Your task to perform on an android device: View the shopping cart on amazon. Search for logitech g910 on amazon, select the first entry, and add it to the cart. Image 0: 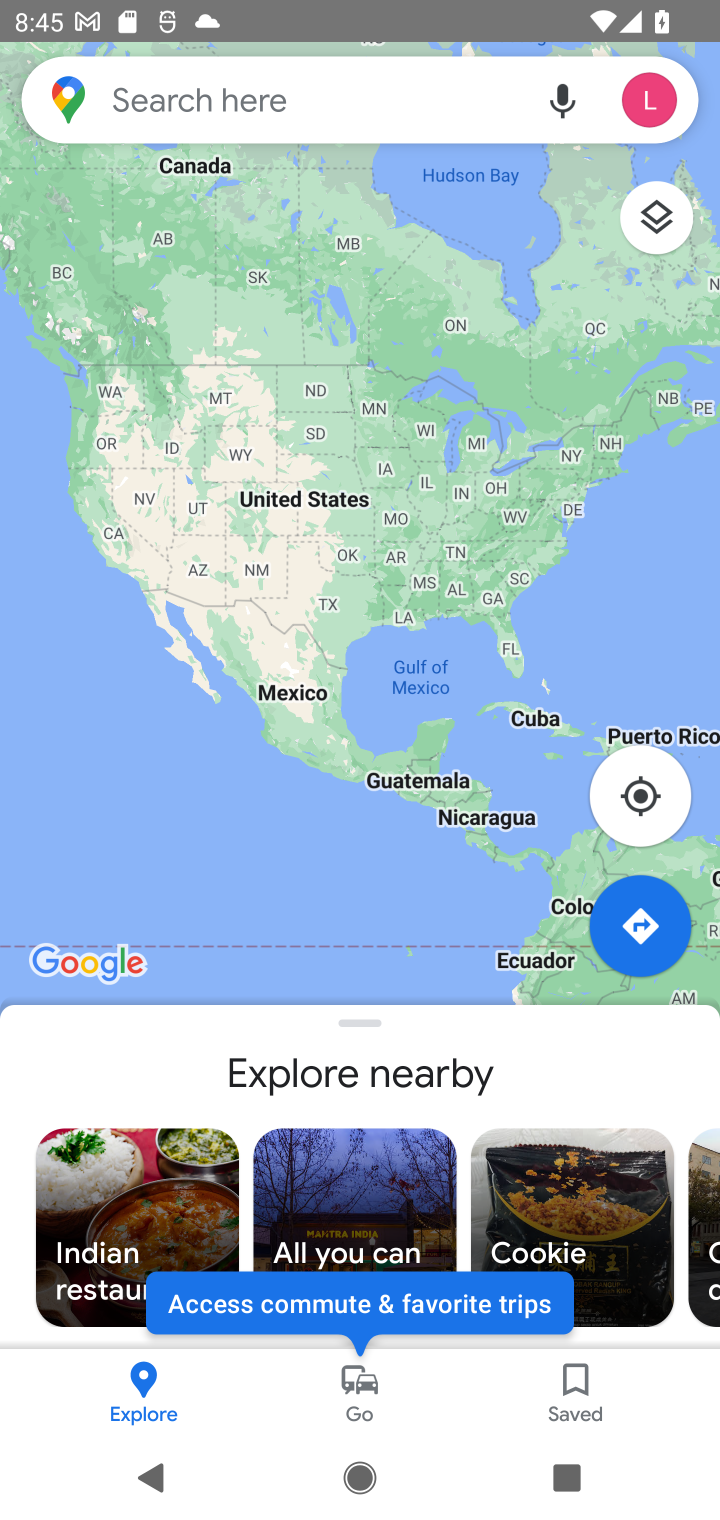
Step 0: press home button
Your task to perform on an android device: View the shopping cart on amazon. Search for logitech g910 on amazon, select the first entry, and add it to the cart. Image 1: 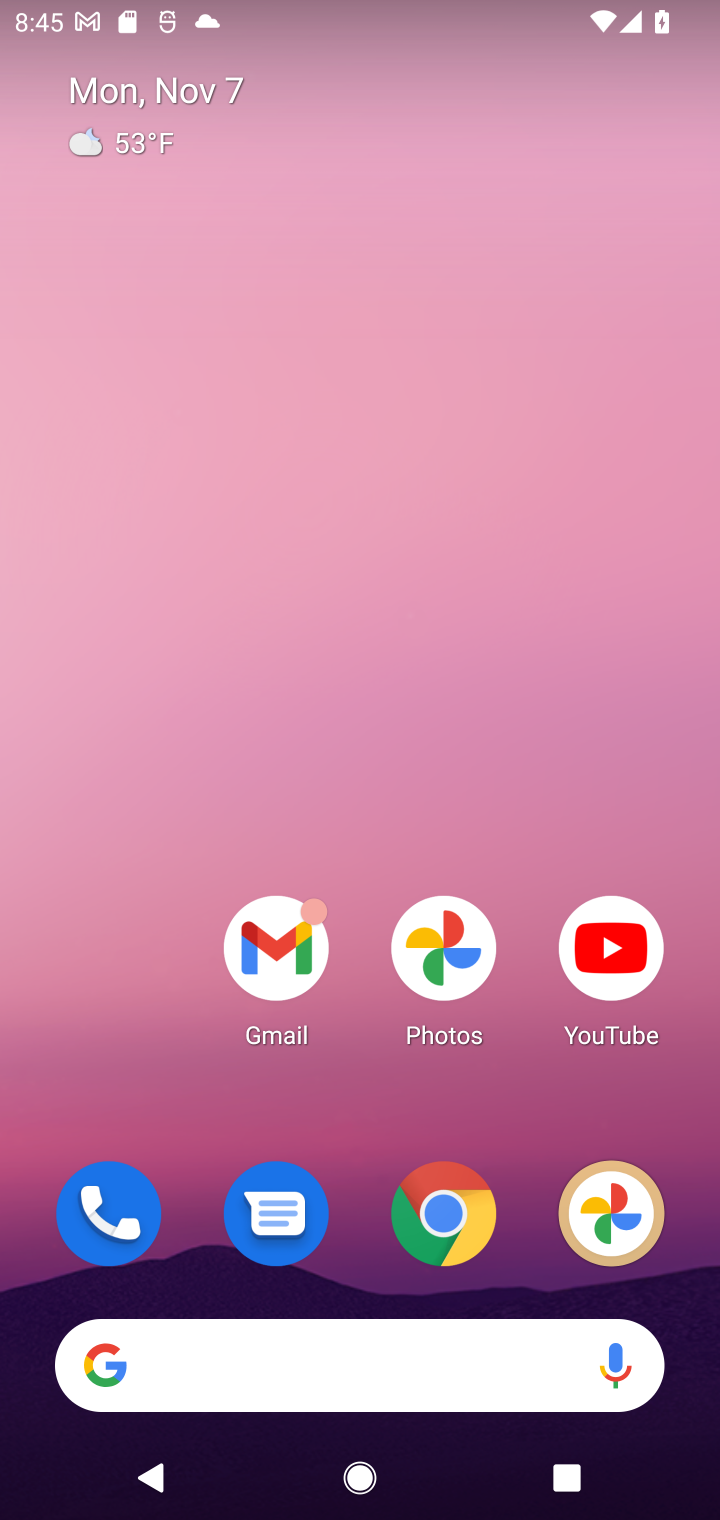
Step 1: click (417, 1251)
Your task to perform on an android device: View the shopping cart on amazon. Search for logitech g910 on amazon, select the first entry, and add it to the cart. Image 2: 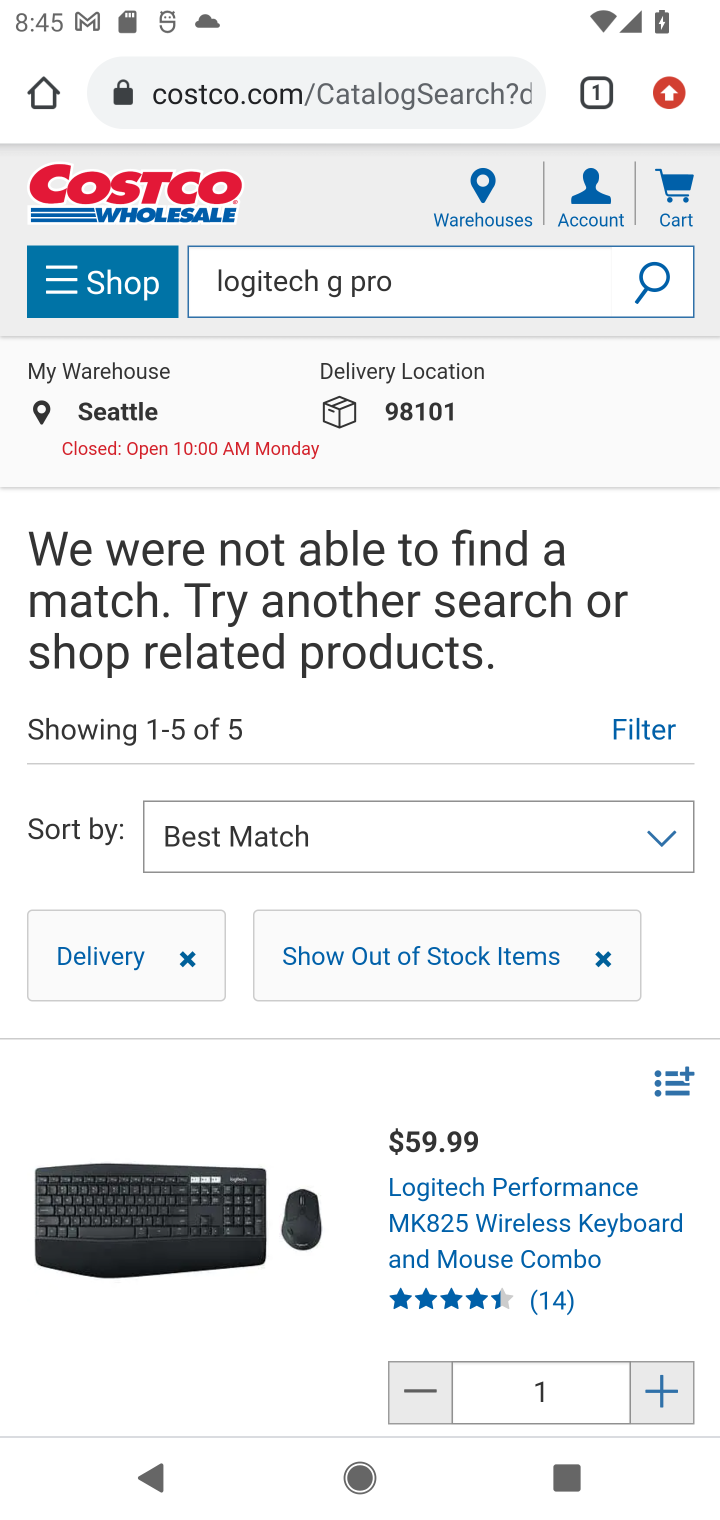
Step 2: click (276, 79)
Your task to perform on an android device: View the shopping cart on amazon. Search for logitech g910 on amazon, select the first entry, and add it to the cart. Image 3: 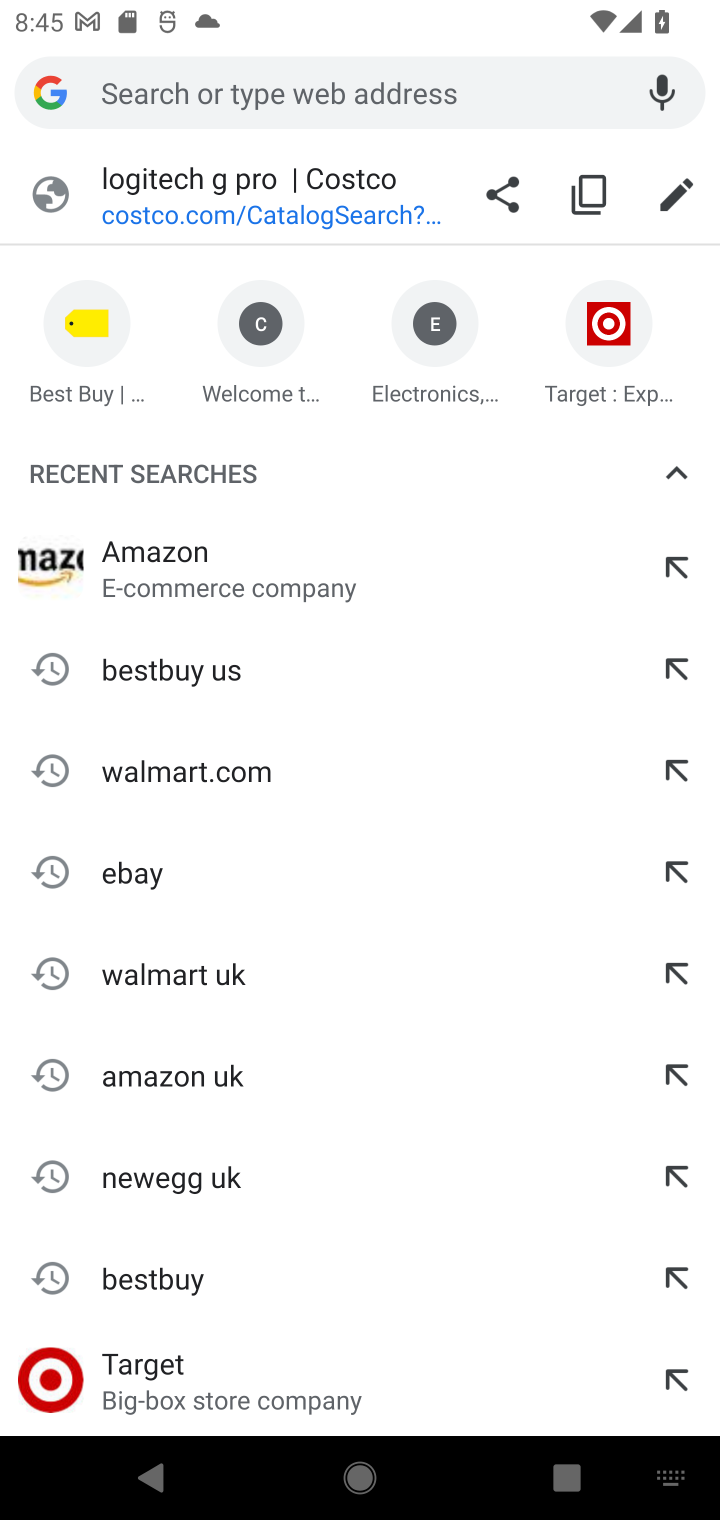
Step 3: type "amazon.com"
Your task to perform on an android device: View the shopping cart on amazon. Search for logitech g910 on amazon, select the first entry, and add it to the cart. Image 4: 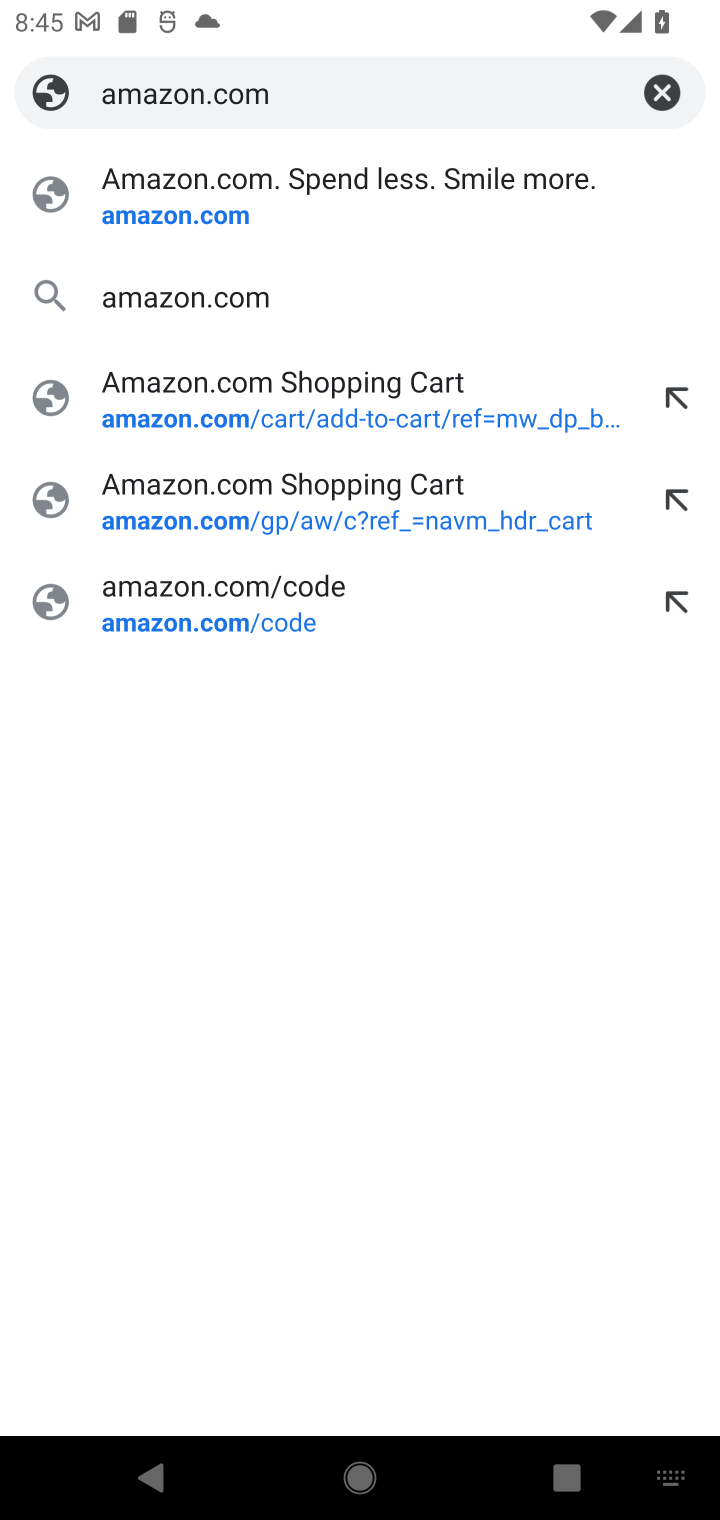
Step 4: click (237, 226)
Your task to perform on an android device: View the shopping cart on amazon. Search for logitech g910 on amazon, select the first entry, and add it to the cart. Image 5: 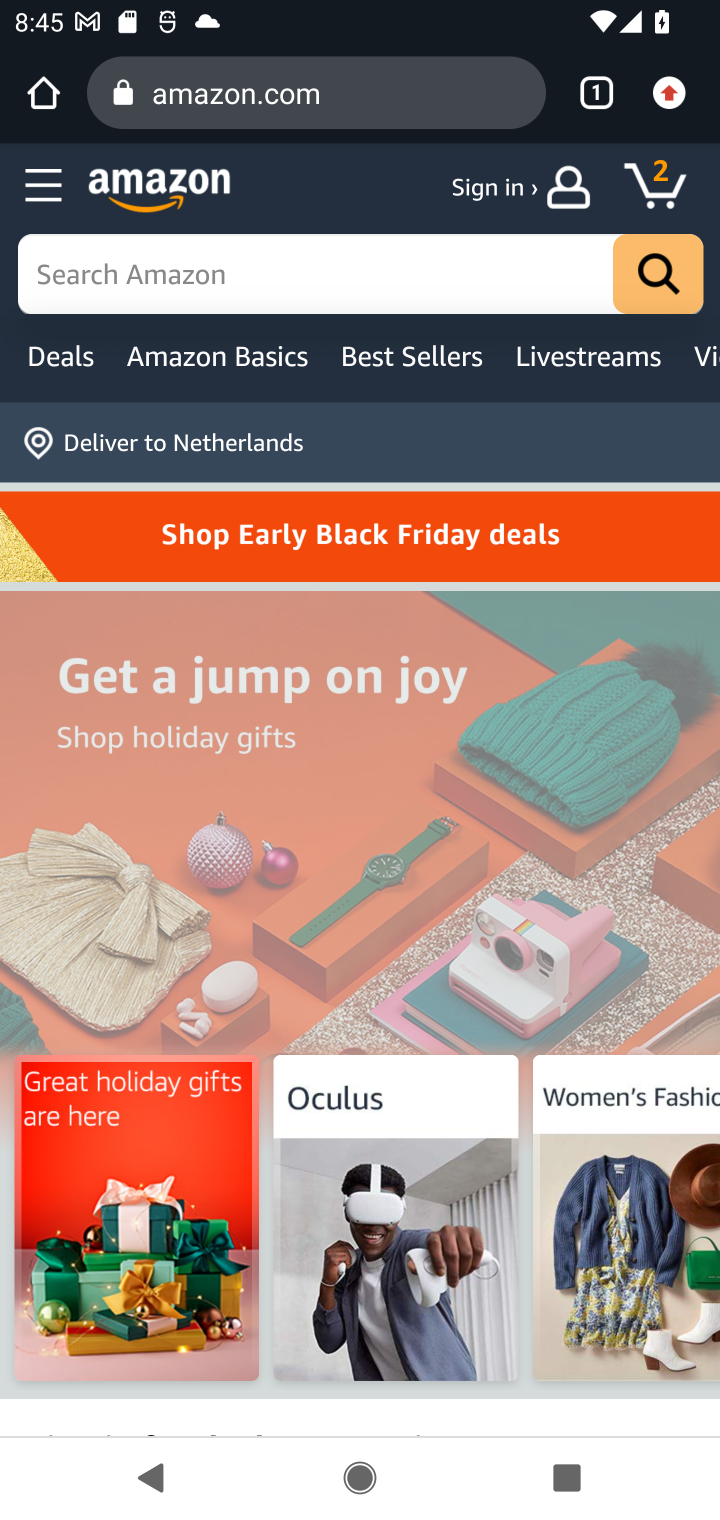
Step 5: click (665, 153)
Your task to perform on an android device: View the shopping cart on amazon. Search for logitech g910 on amazon, select the first entry, and add it to the cart. Image 6: 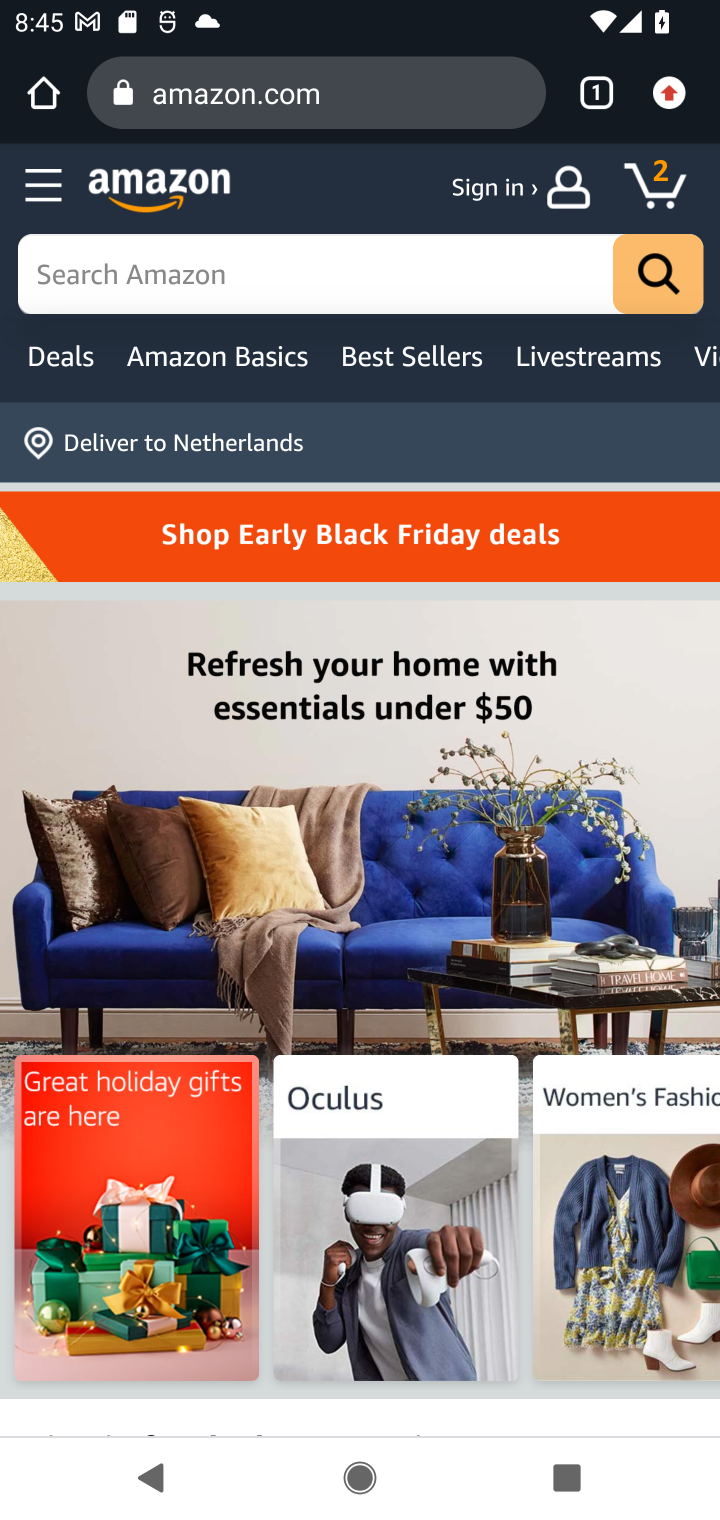
Step 6: click (666, 191)
Your task to perform on an android device: View the shopping cart on amazon. Search for logitech g910 on amazon, select the first entry, and add it to the cart. Image 7: 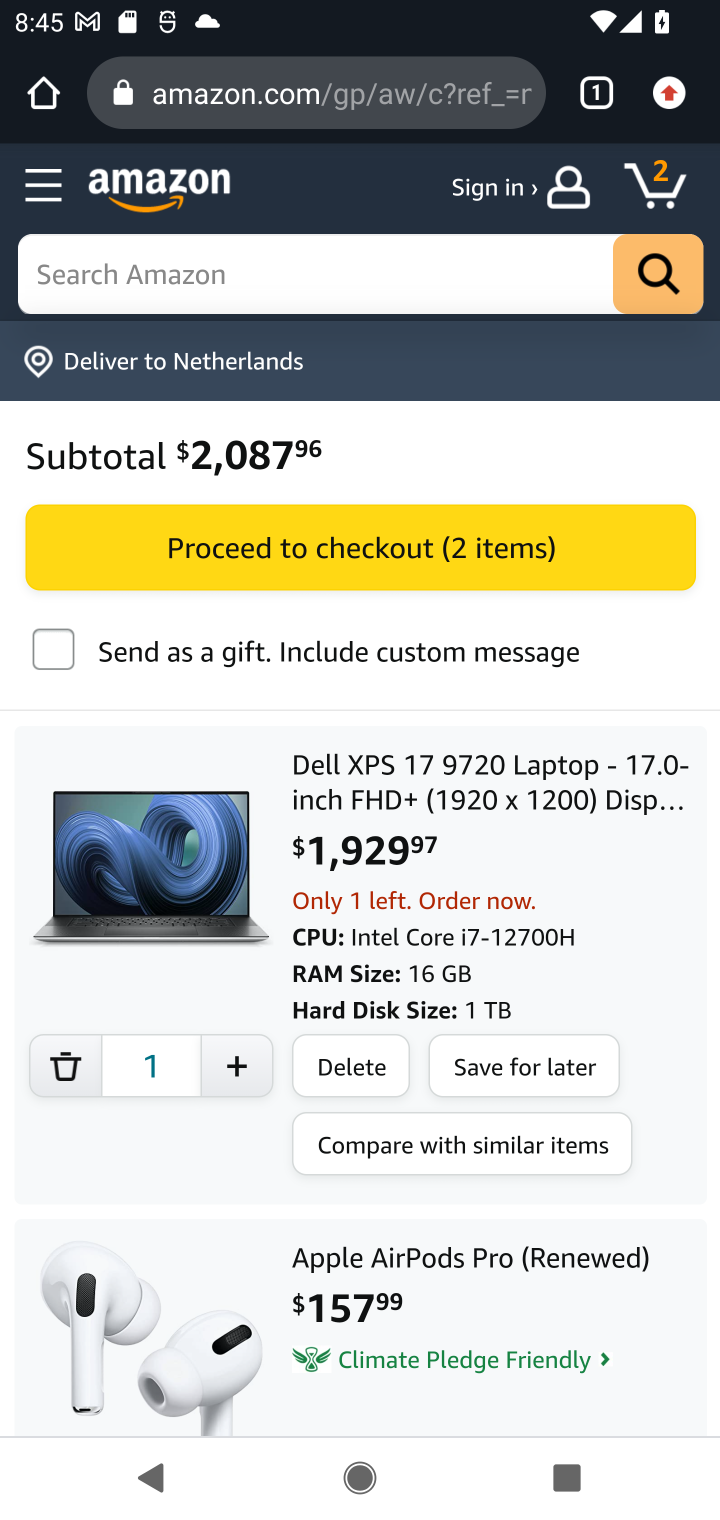
Step 7: click (277, 292)
Your task to perform on an android device: View the shopping cart on amazon. Search for logitech g910 on amazon, select the first entry, and add it to the cart. Image 8: 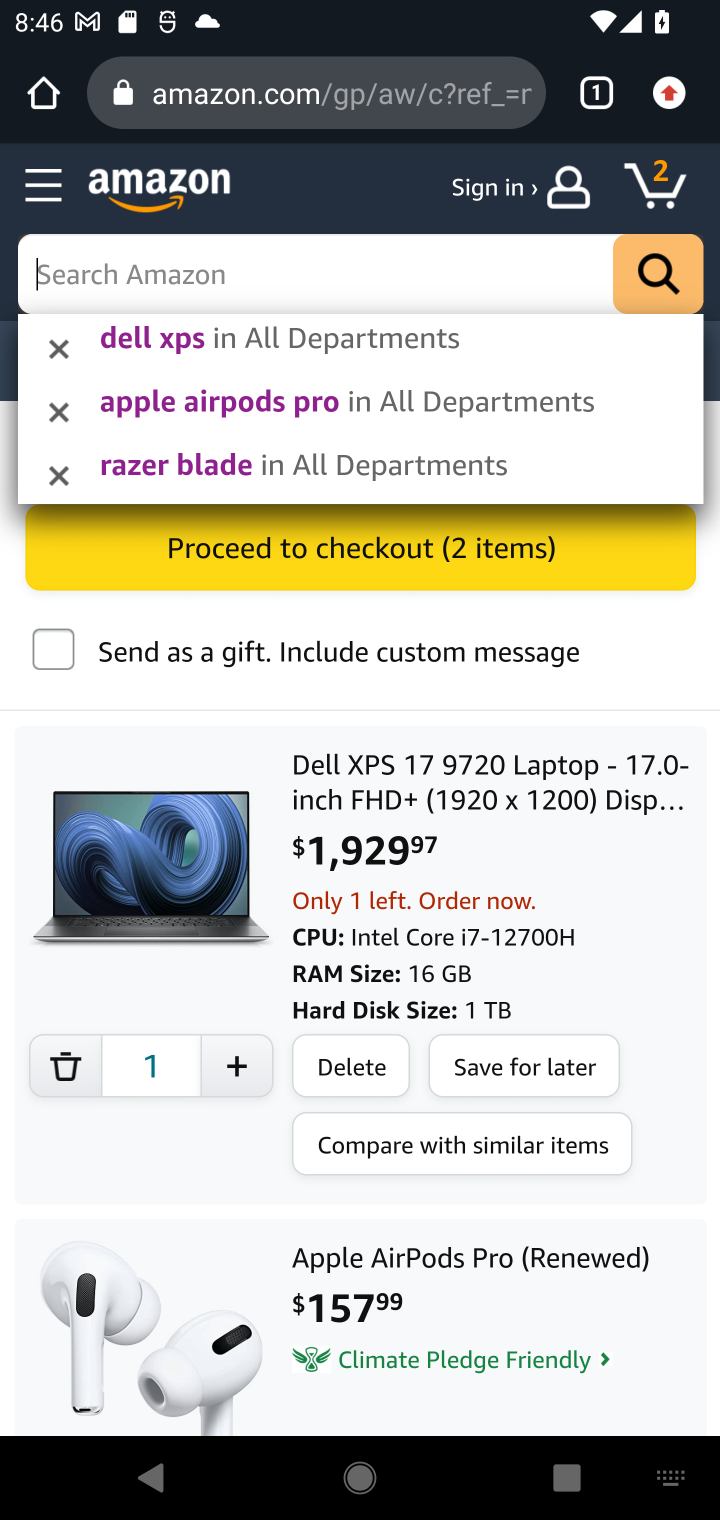
Step 8: type "logitech g910"
Your task to perform on an android device: View the shopping cart on amazon. Search for logitech g910 on amazon, select the first entry, and add it to the cart. Image 9: 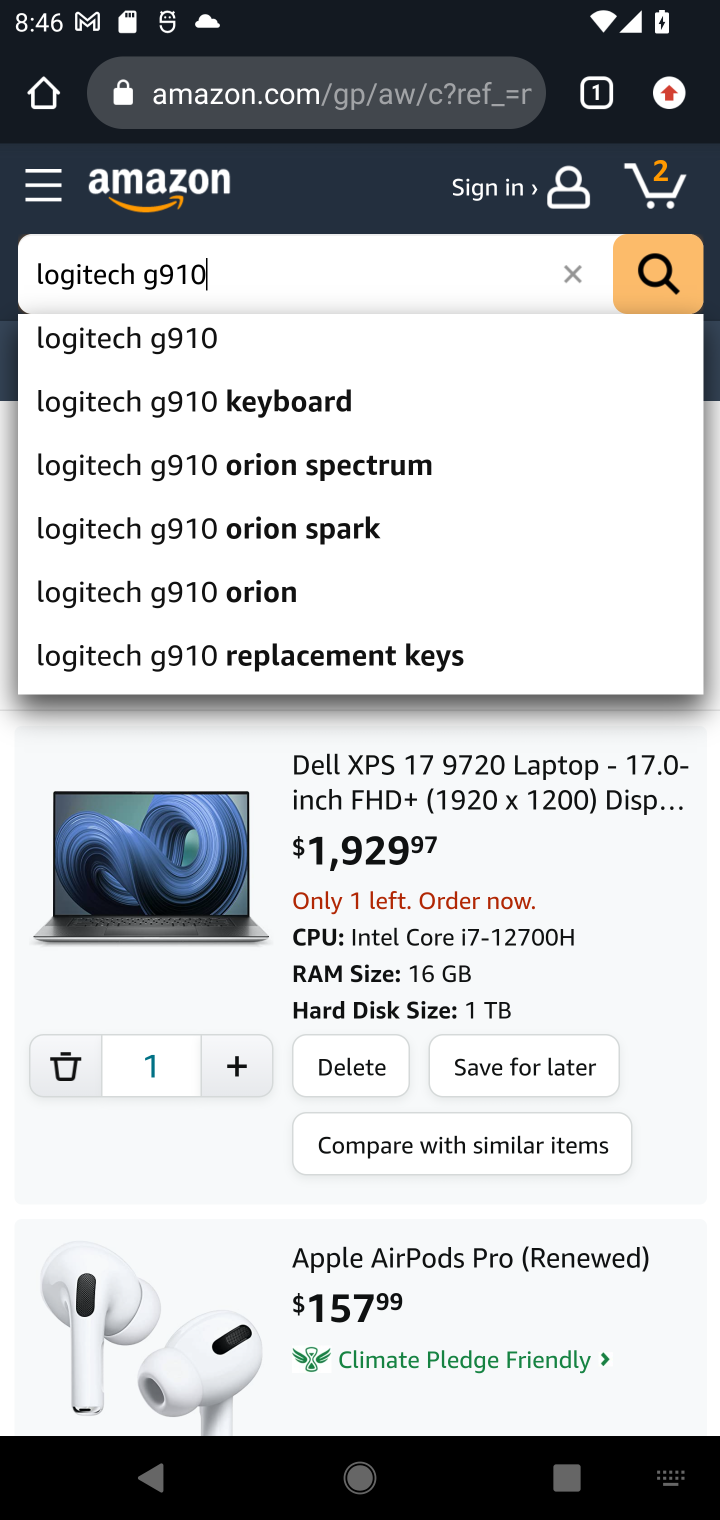
Step 9: click (148, 354)
Your task to perform on an android device: View the shopping cart on amazon. Search for logitech g910 on amazon, select the first entry, and add it to the cart. Image 10: 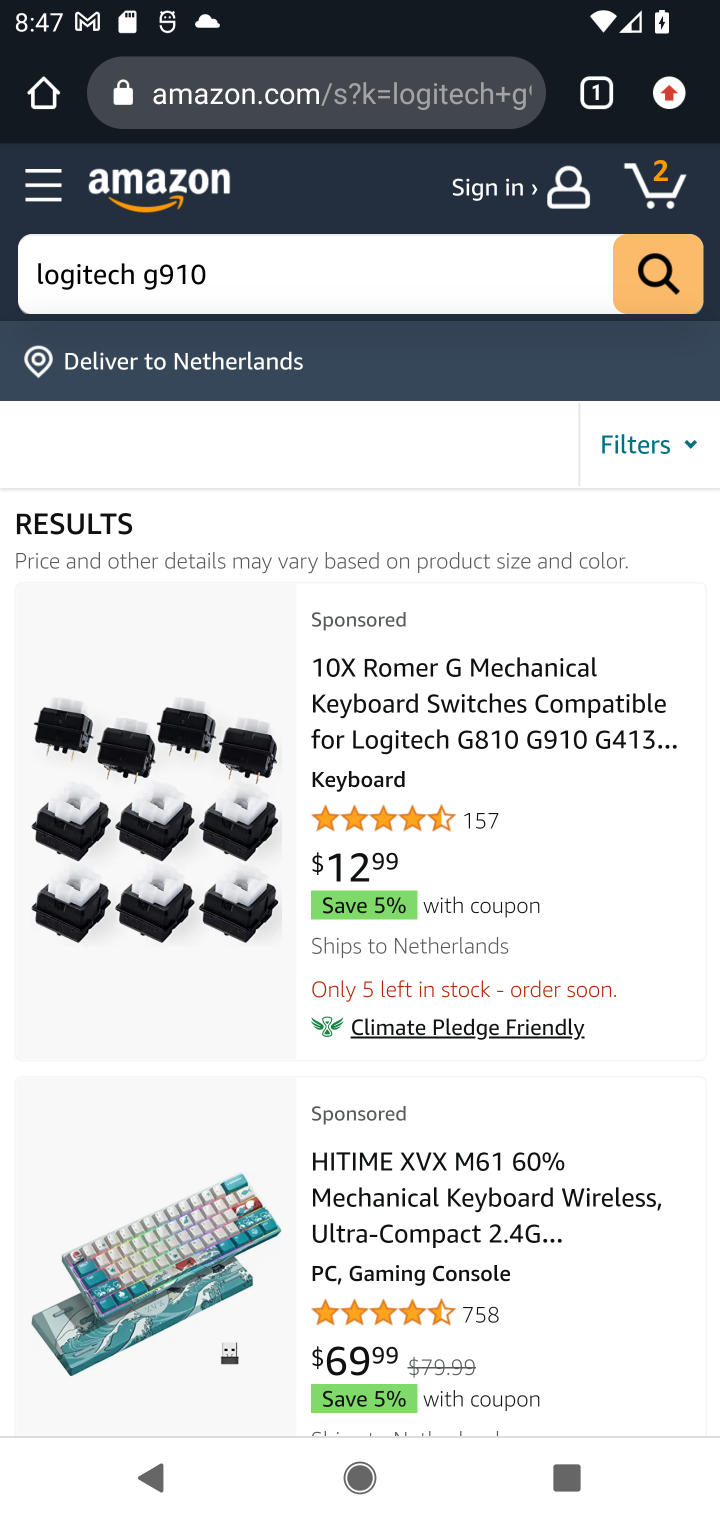
Step 10: task complete